Your task to perform on an android device: open app "VLC for Android" (install if not already installed) Image 0: 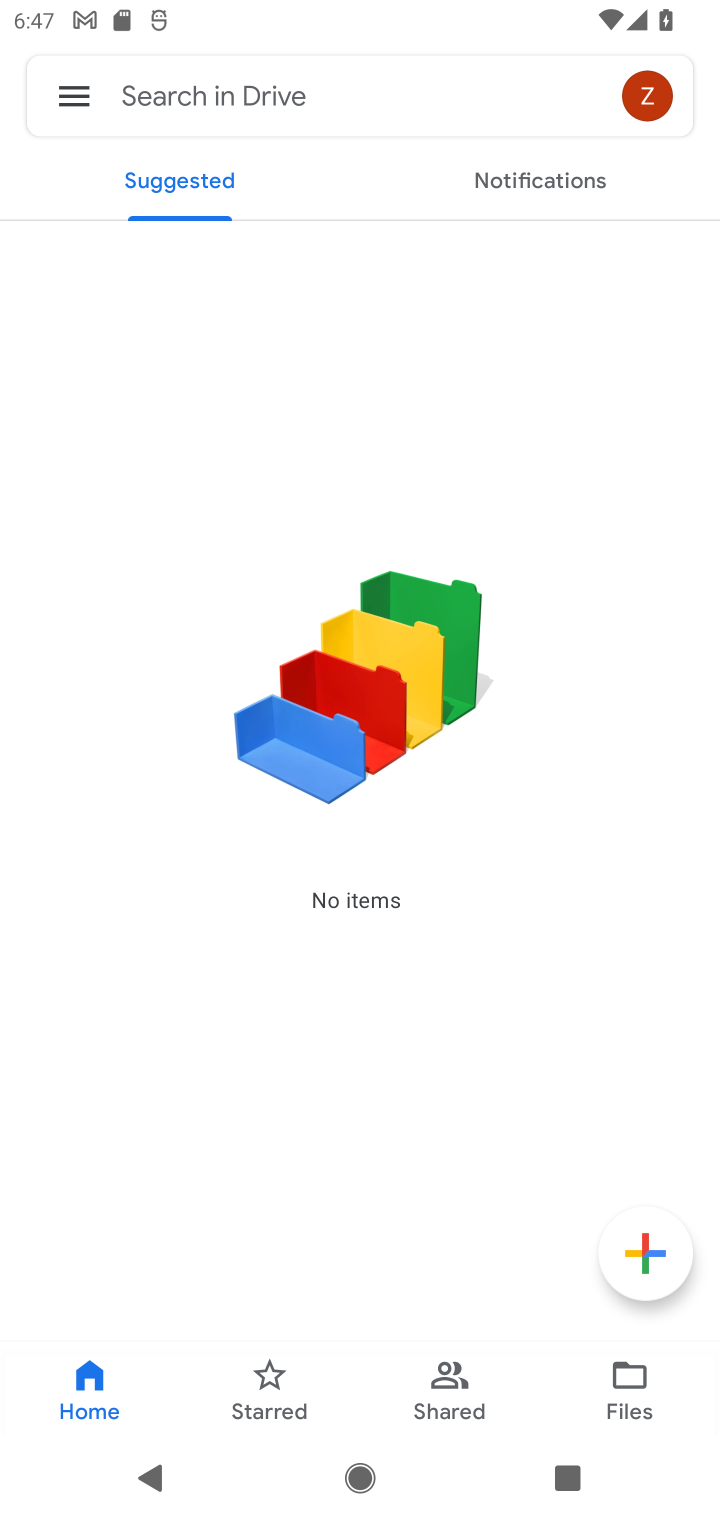
Step 0: press home button
Your task to perform on an android device: open app "VLC for Android" (install if not already installed) Image 1: 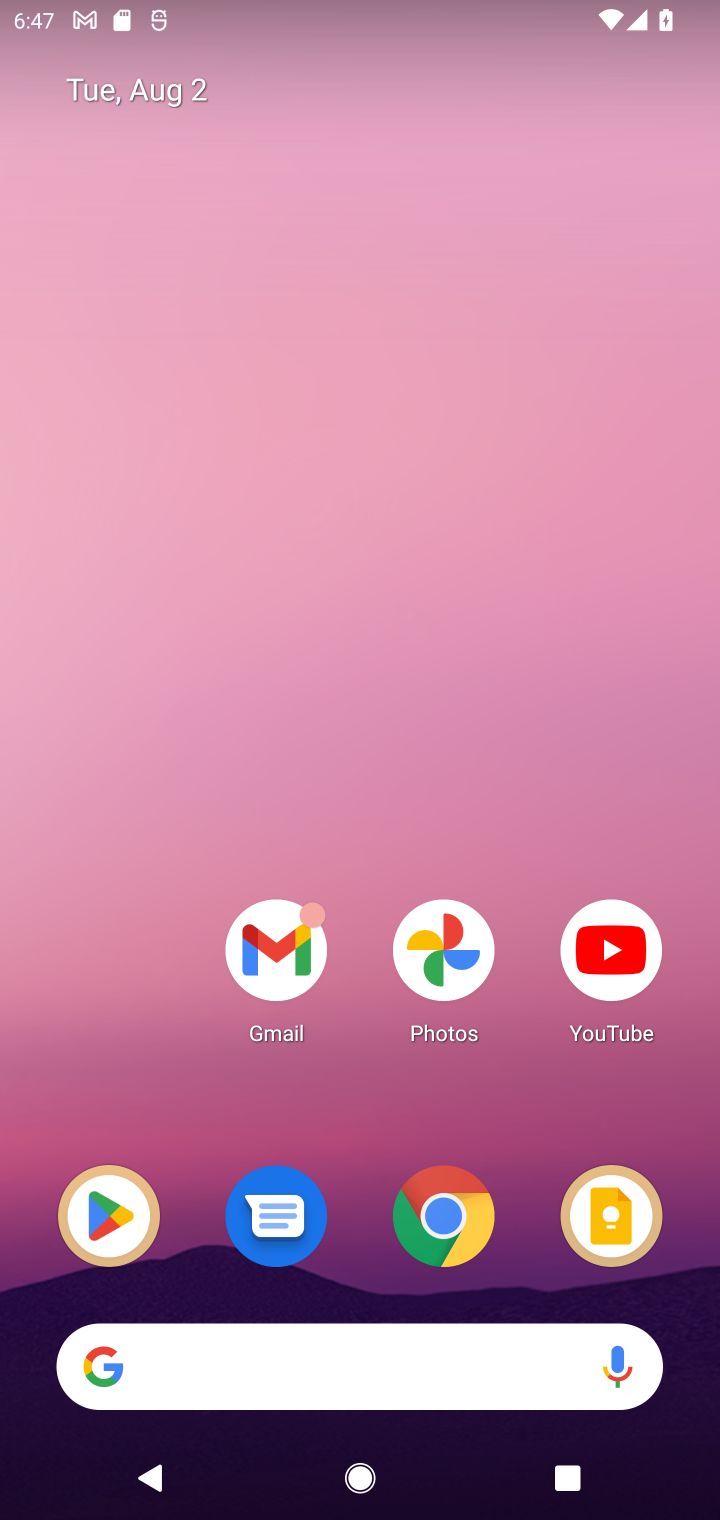
Step 1: click (116, 1209)
Your task to perform on an android device: open app "VLC for Android" (install if not already installed) Image 2: 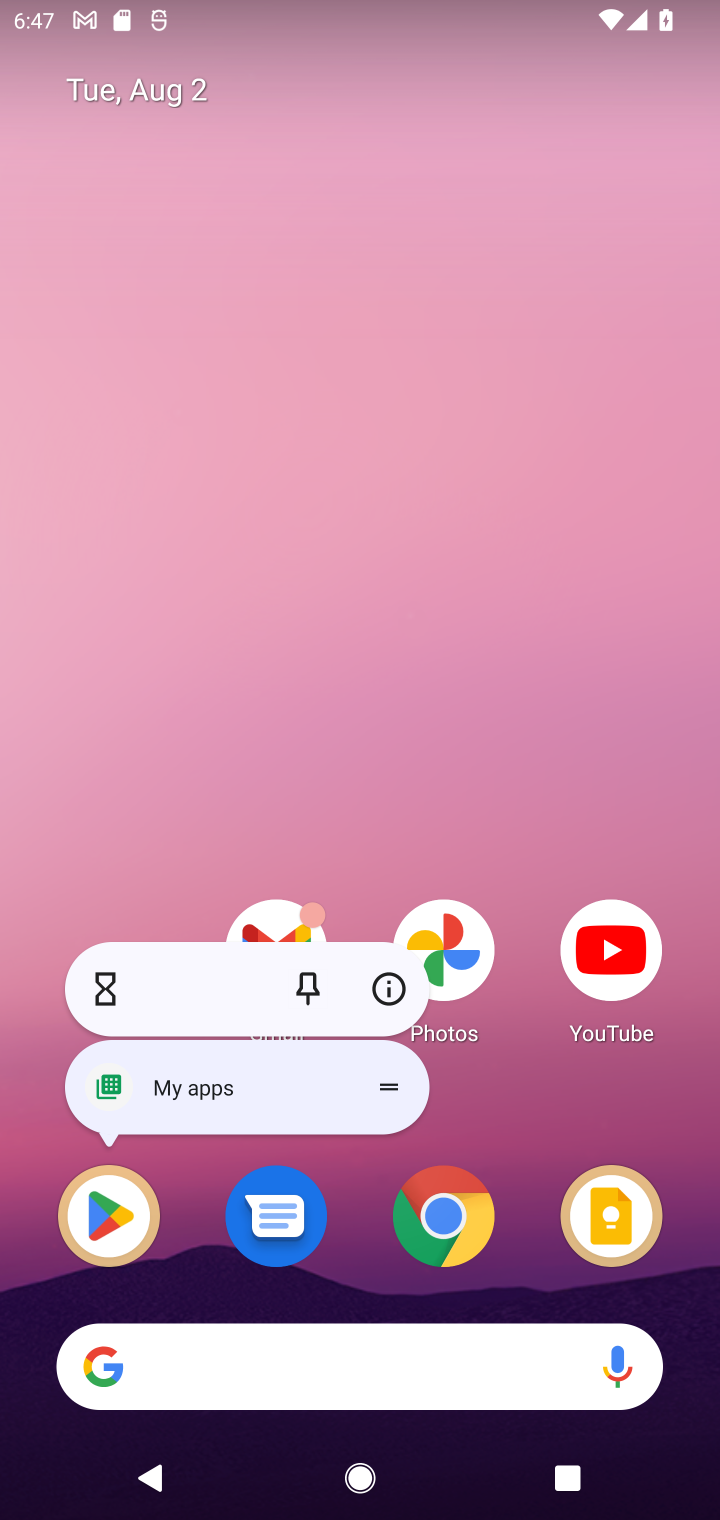
Step 2: click (116, 1209)
Your task to perform on an android device: open app "VLC for Android" (install if not already installed) Image 3: 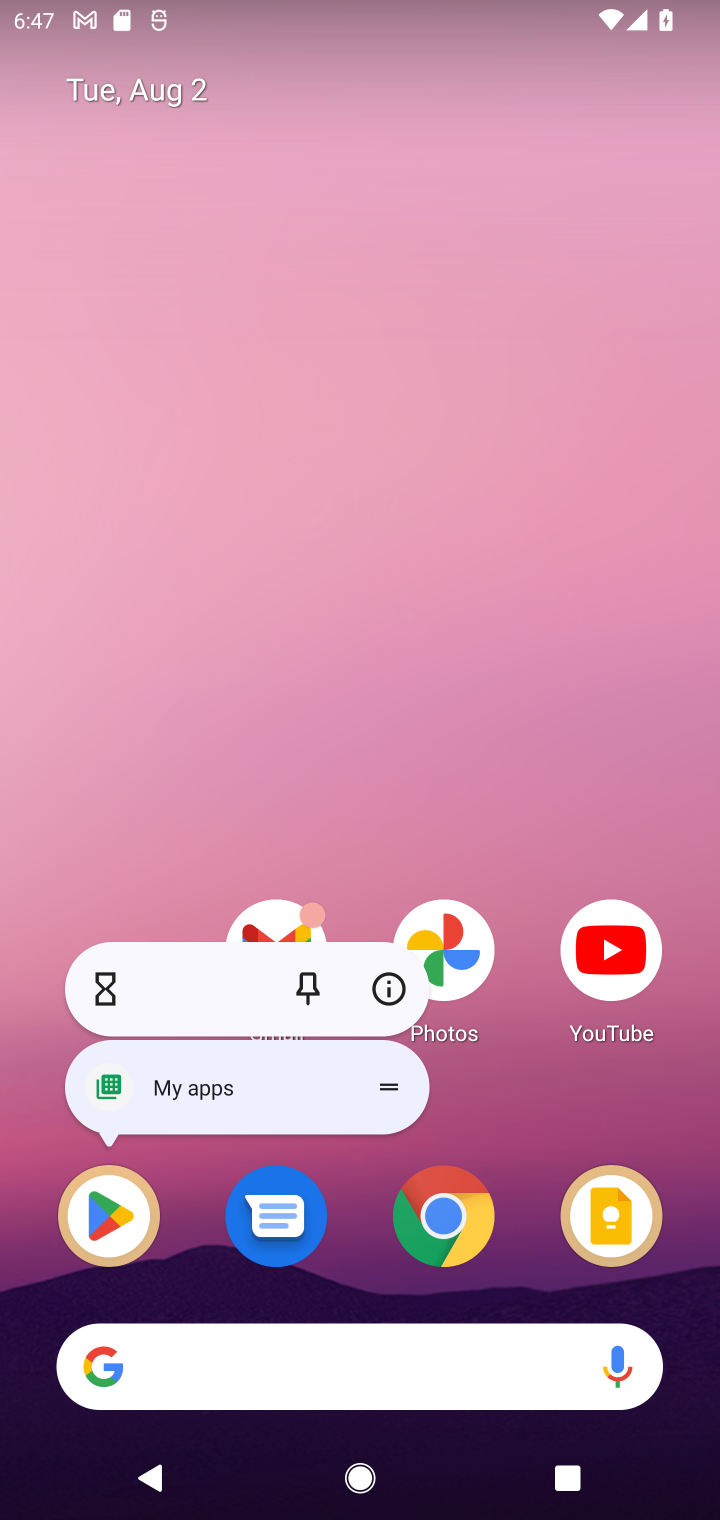
Step 3: click (116, 1207)
Your task to perform on an android device: open app "VLC for Android" (install if not already installed) Image 4: 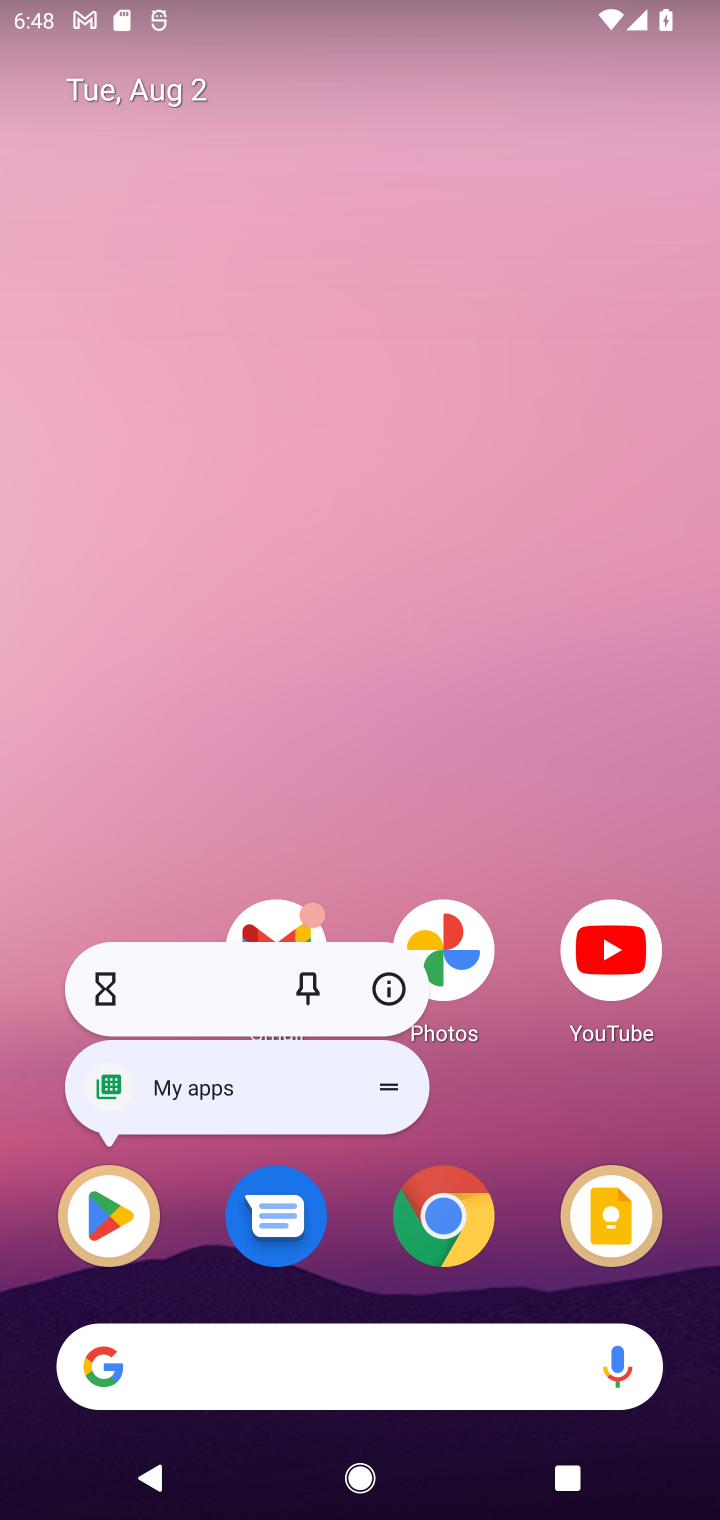
Step 4: click (107, 1222)
Your task to perform on an android device: open app "VLC for Android" (install if not already installed) Image 5: 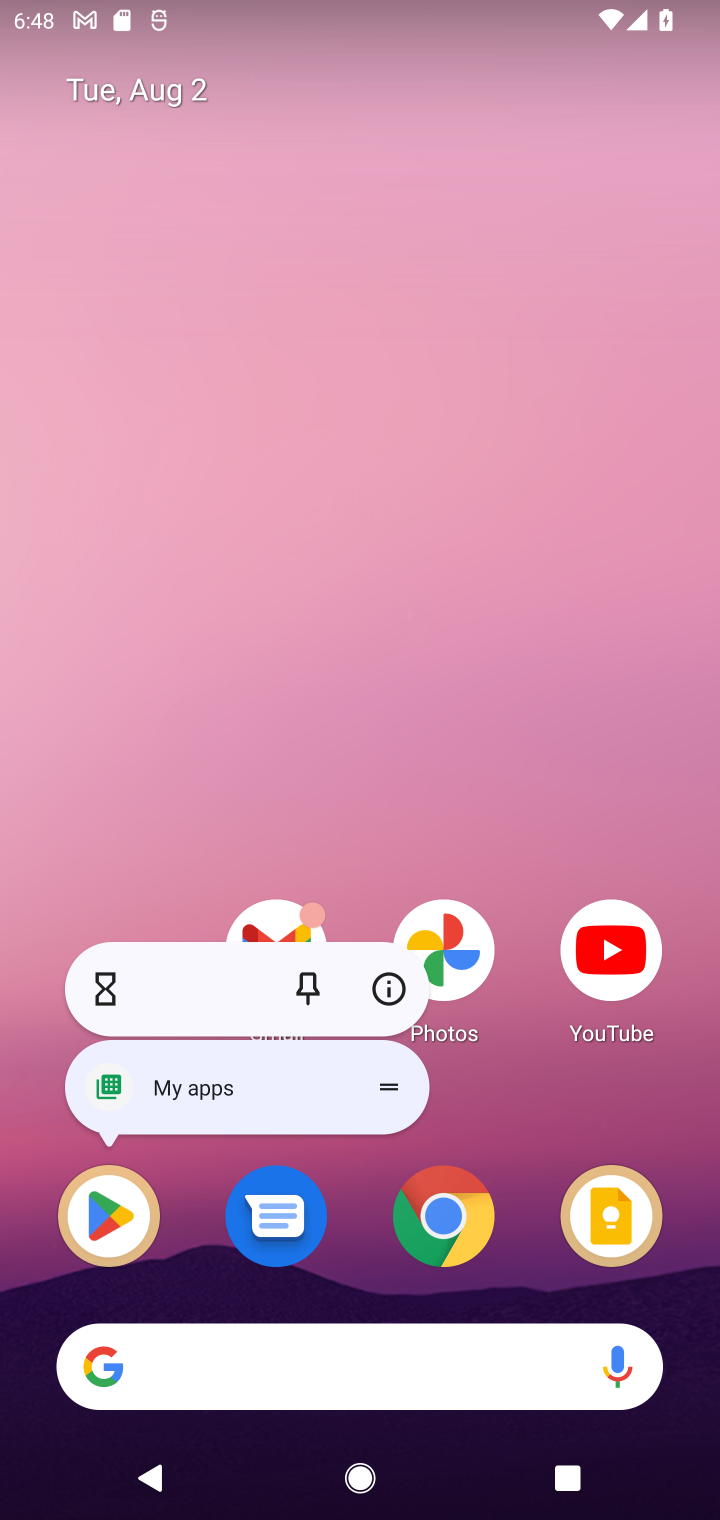
Step 5: click (109, 1220)
Your task to perform on an android device: open app "VLC for Android" (install if not already installed) Image 6: 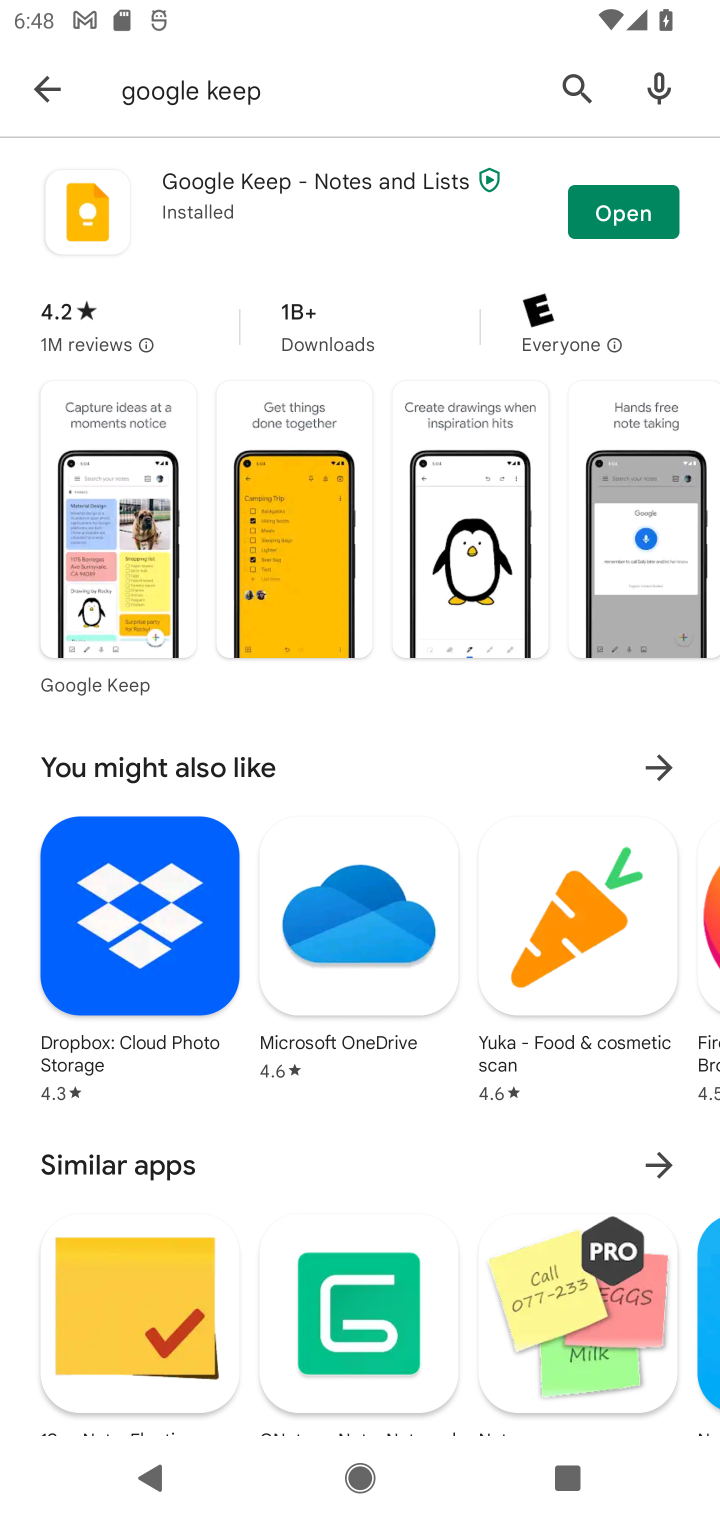
Step 6: click (575, 87)
Your task to perform on an android device: open app "VLC for Android" (install if not already installed) Image 7: 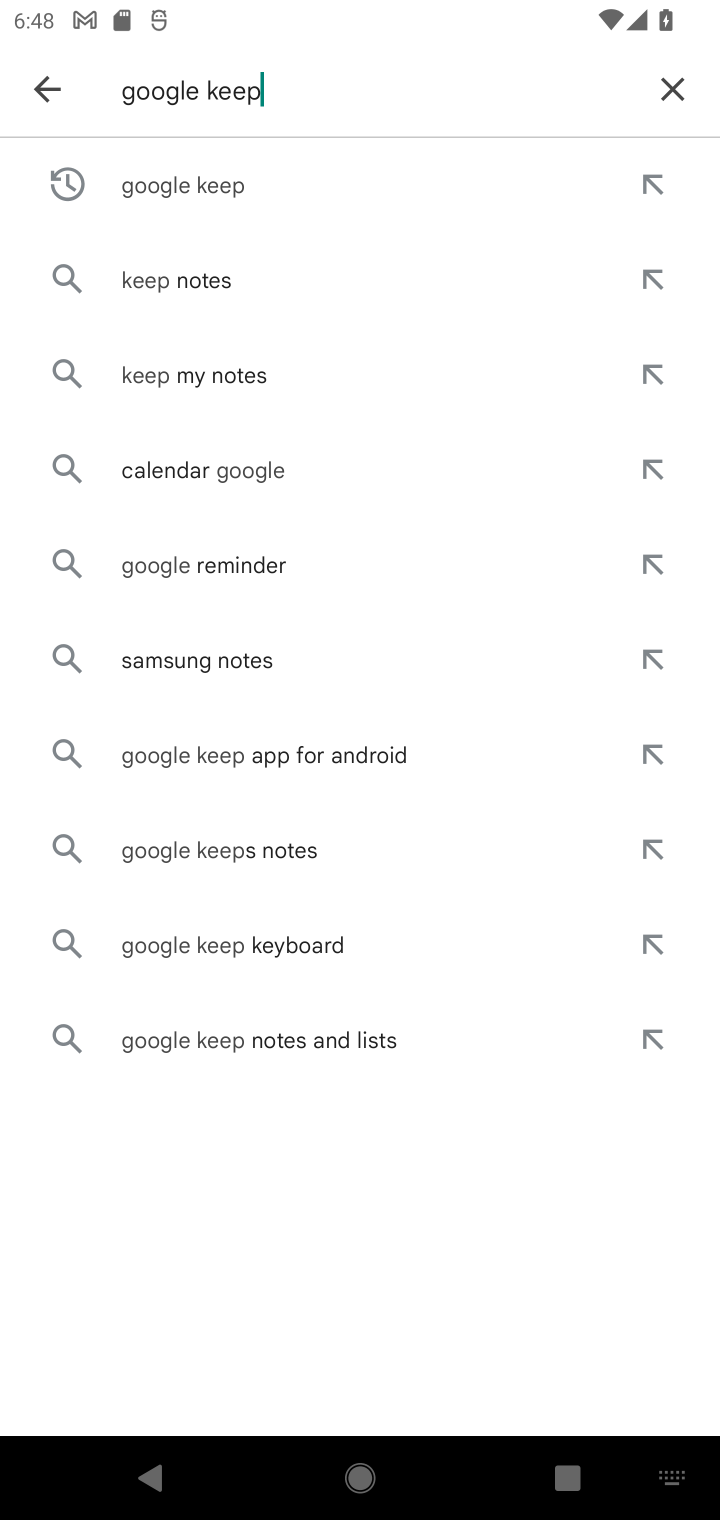
Step 7: click (677, 83)
Your task to perform on an android device: open app "VLC for Android" (install if not already installed) Image 8: 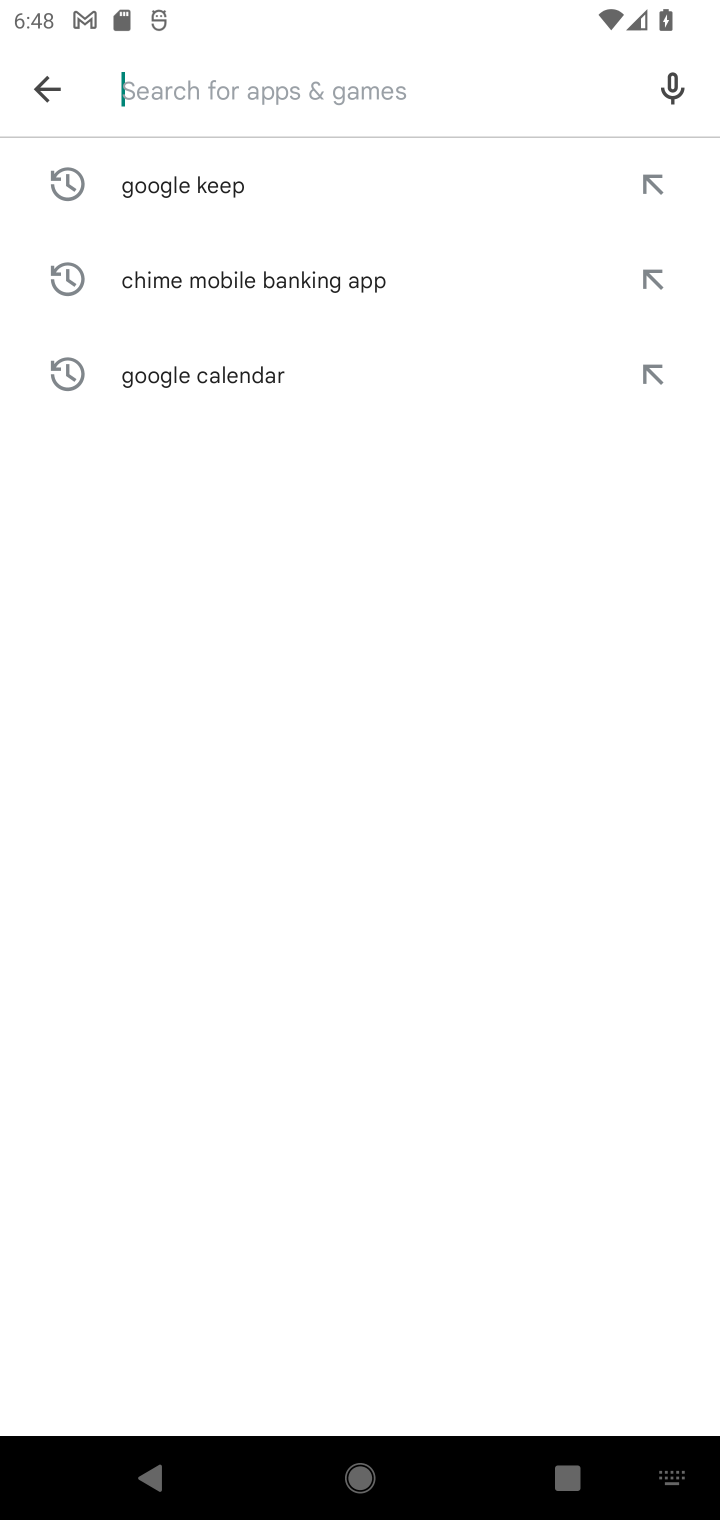
Step 8: type "VLC for Android"
Your task to perform on an android device: open app "VLC for Android" (install if not already installed) Image 9: 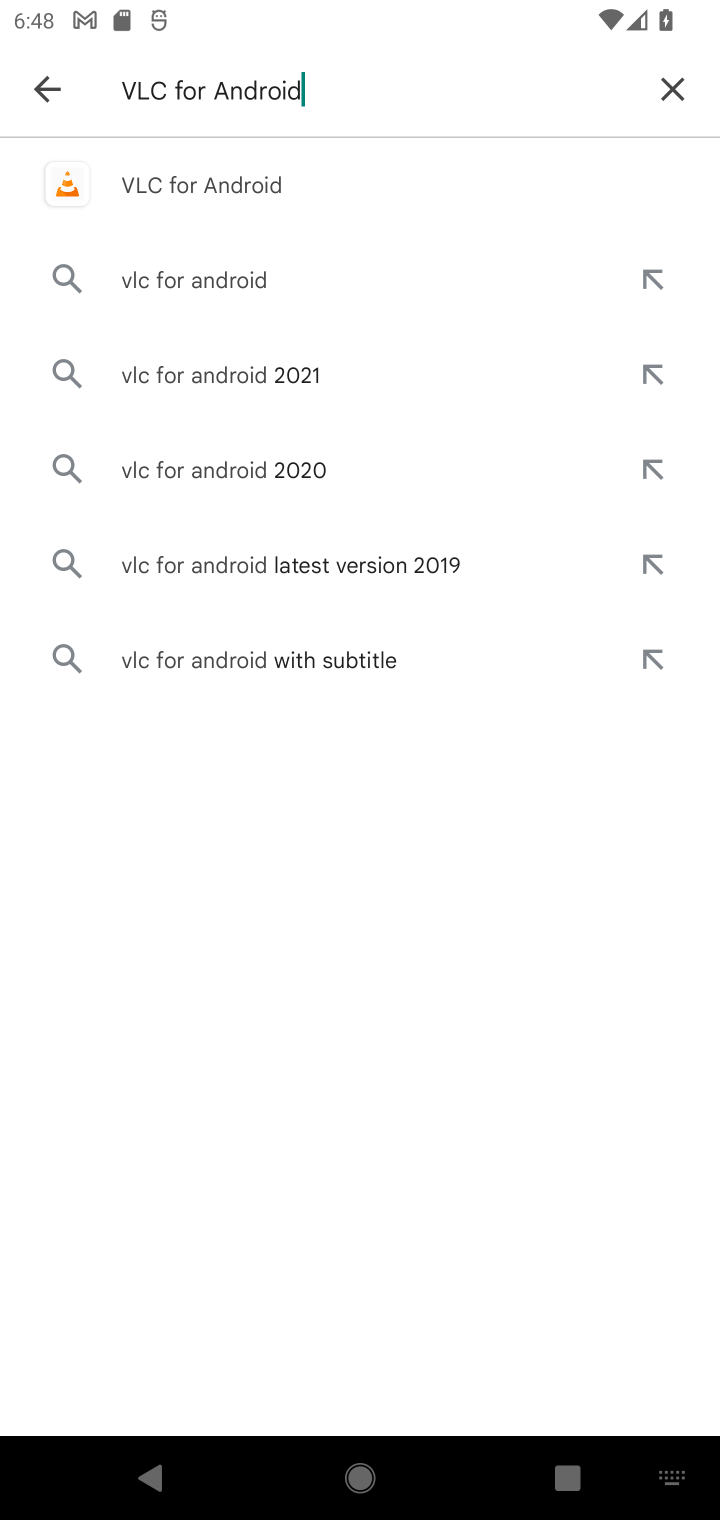
Step 9: click (277, 179)
Your task to perform on an android device: open app "VLC for Android" (install if not already installed) Image 10: 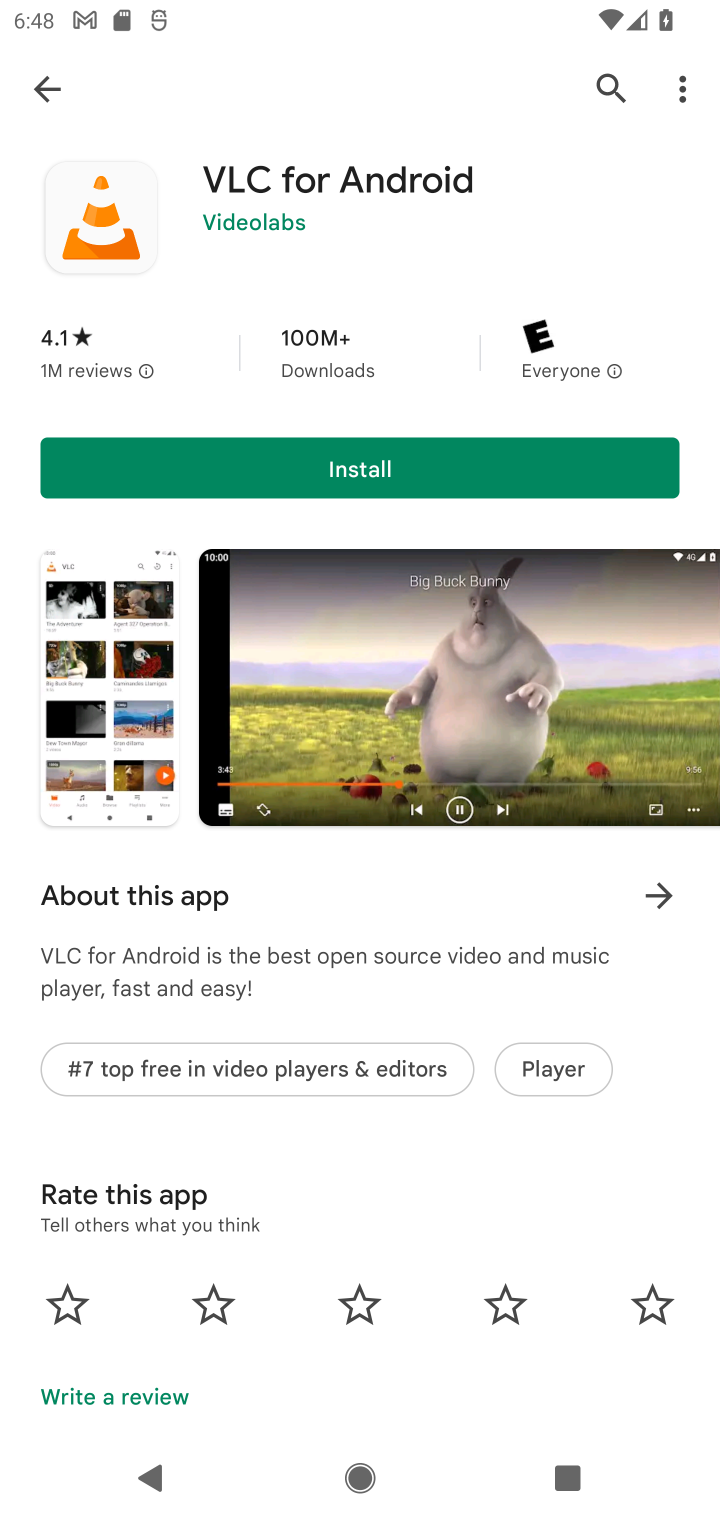
Step 10: click (403, 481)
Your task to perform on an android device: open app "VLC for Android" (install if not already installed) Image 11: 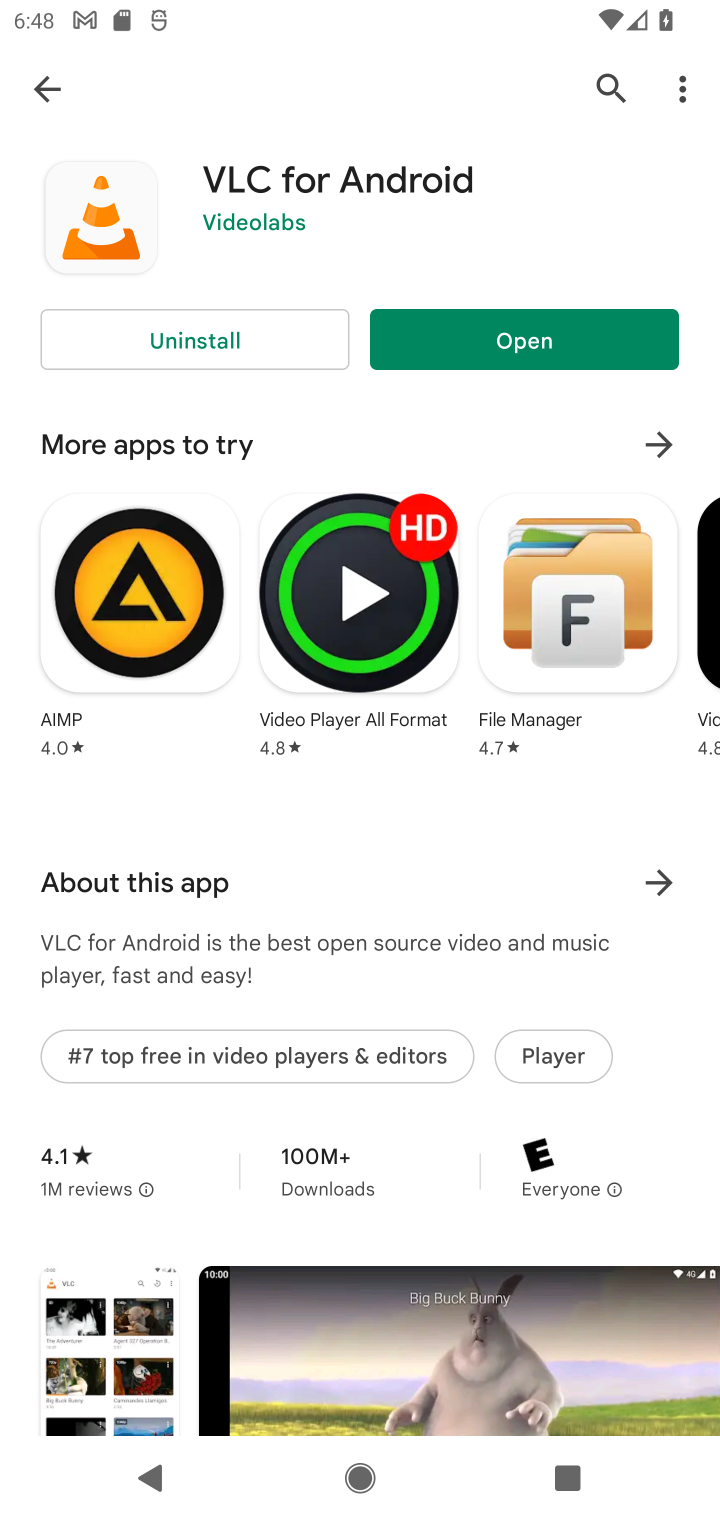
Step 11: click (568, 333)
Your task to perform on an android device: open app "VLC for Android" (install if not already installed) Image 12: 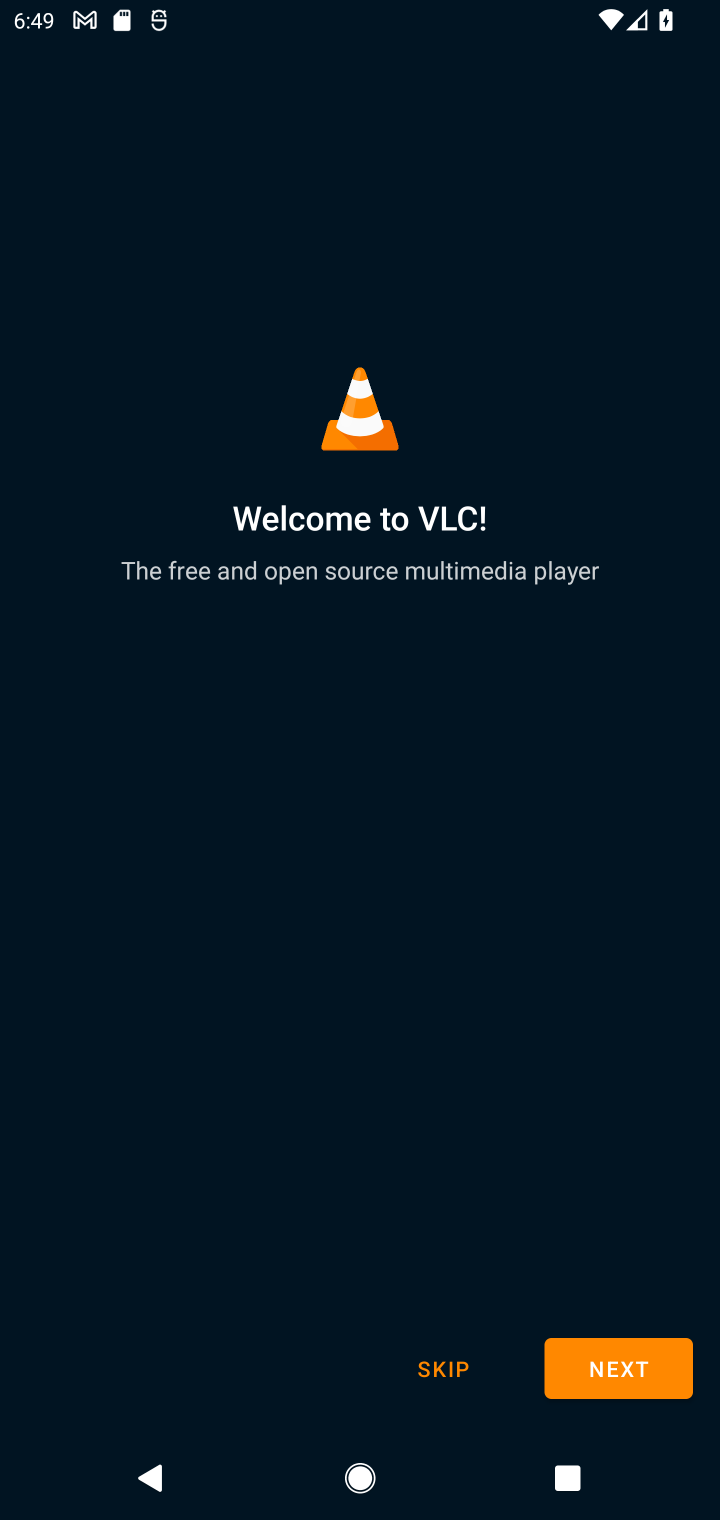
Step 12: task complete